Your task to perform on an android device: When is my next meeting? Image 0: 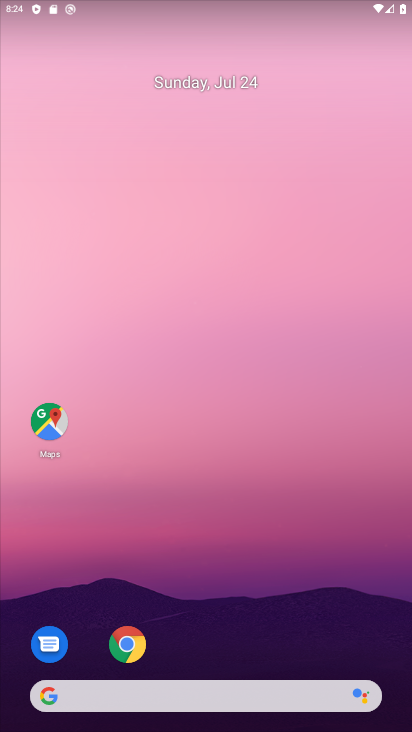
Step 0: drag from (279, 623) to (251, 30)
Your task to perform on an android device: When is my next meeting? Image 1: 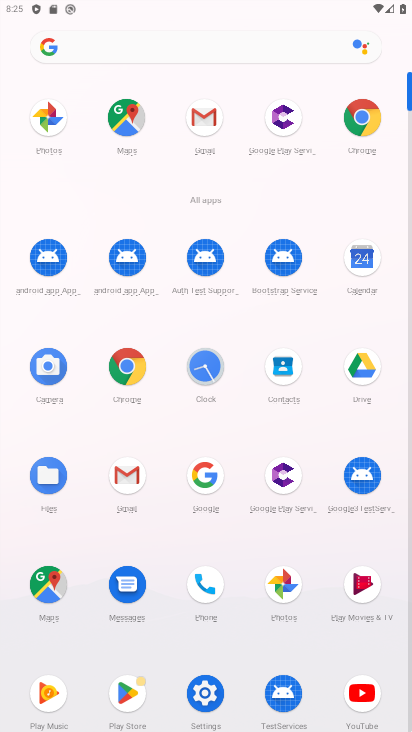
Step 1: click (359, 269)
Your task to perform on an android device: When is my next meeting? Image 2: 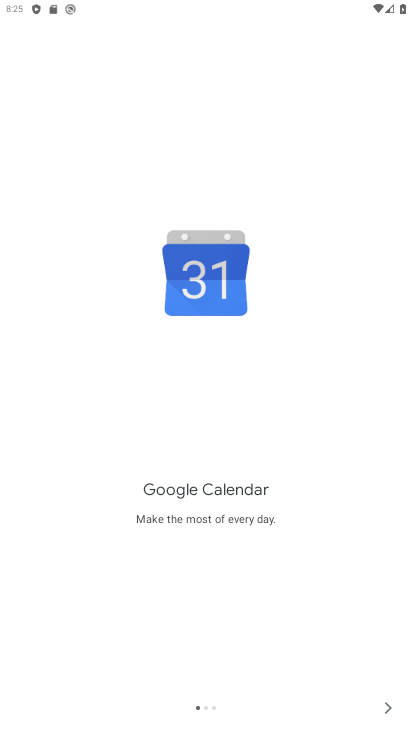
Step 2: click (379, 700)
Your task to perform on an android device: When is my next meeting? Image 3: 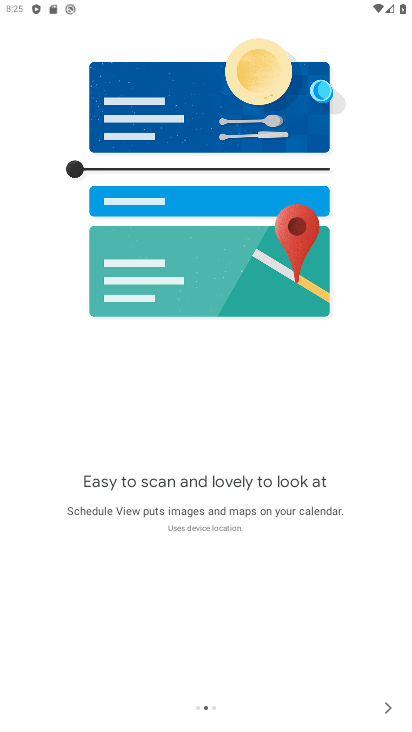
Step 3: click (379, 700)
Your task to perform on an android device: When is my next meeting? Image 4: 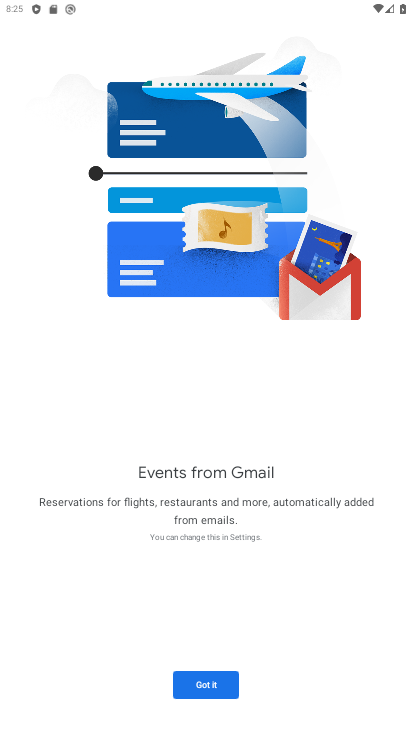
Step 4: click (379, 700)
Your task to perform on an android device: When is my next meeting? Image 5: 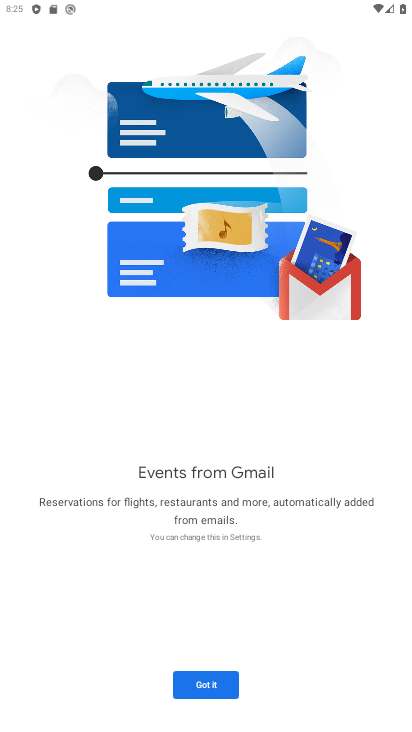
Step 5: click (212, 682)
Your task to perform on an android device: When is my next meeting? Image 6: 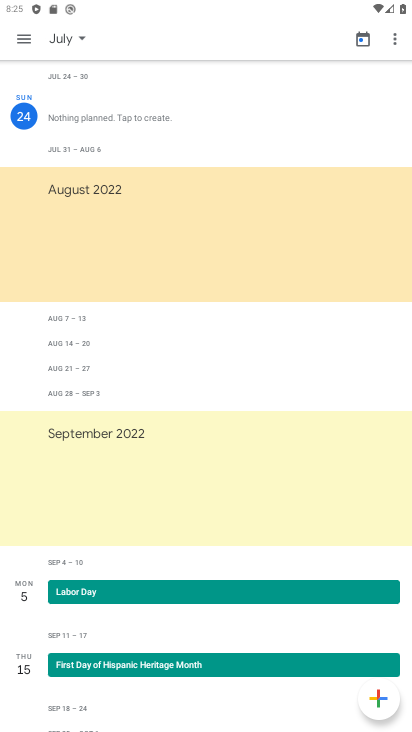
Step 6: click (15, 33)
Your task to perform on an android device: When is my next meeting? Image 7: 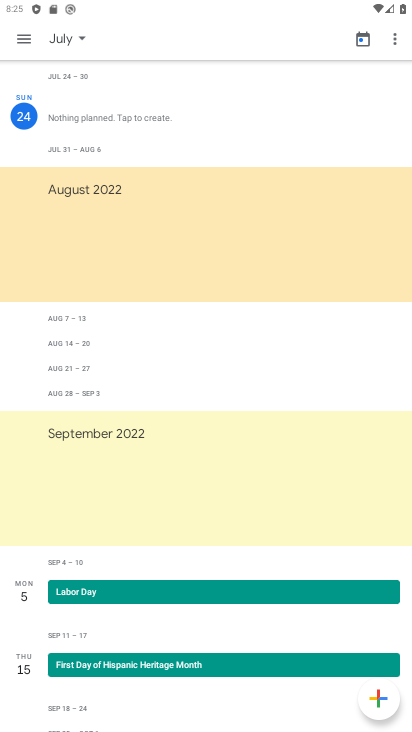
Step 7: click (13, 33)
Your task to perform on an android device: When is my next meeting? Image 8: 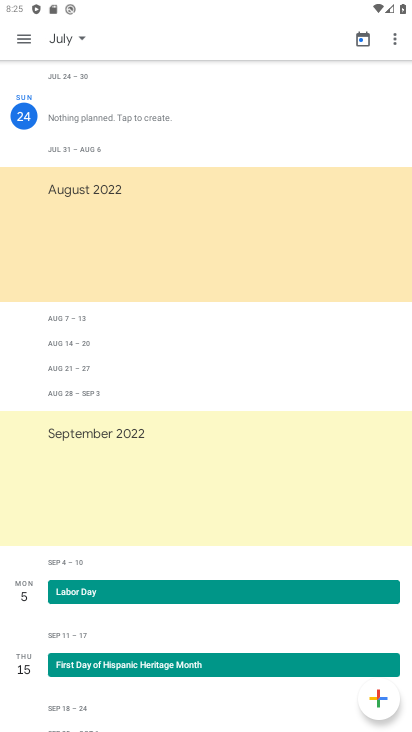
Step 8: click (19, 34)
Your task to perform on an android device: When is my next meeting? Image 9: 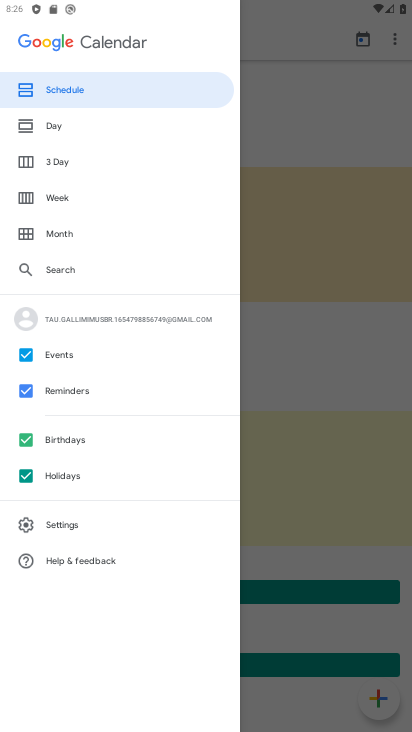
Step 9: click (326, 59)
Your task to perform on an android device: When is my next meeting? Image 10: 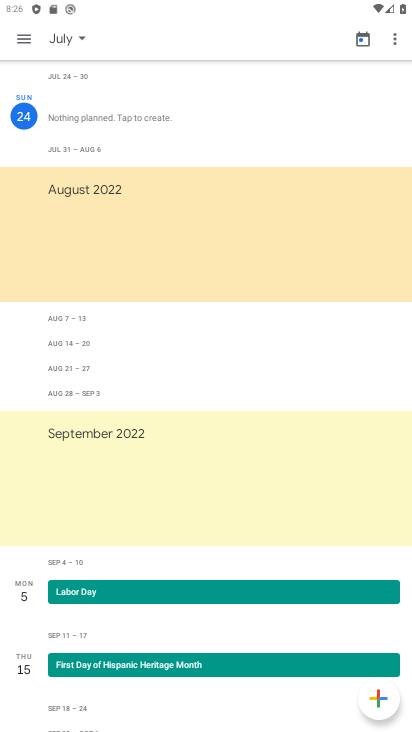
Step 10: click (359, 42)
Your task to perform on an android device: When is my next meeting? Image 11: 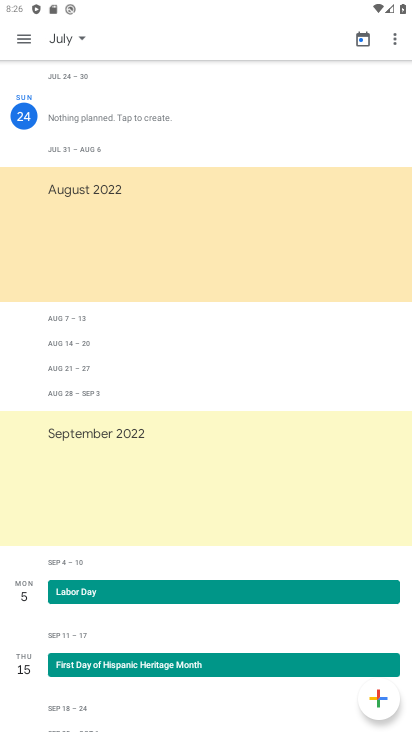
Step 11: click (359, 42)
Your task to perform on an android device: When is my next meeting? Image 12: 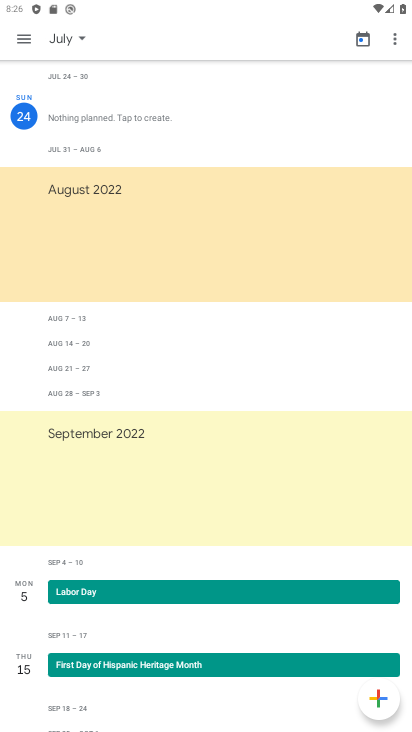
Step 12: click (359, 42)
Your task to perform on an android device: When is my next meeting? Image 13: 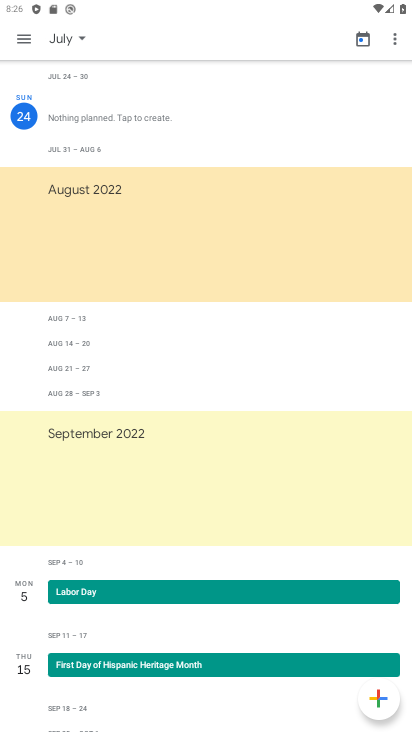
Step 13: click (359, 42)
Your task to perform on an android device: When is my next meeting? Image 14: 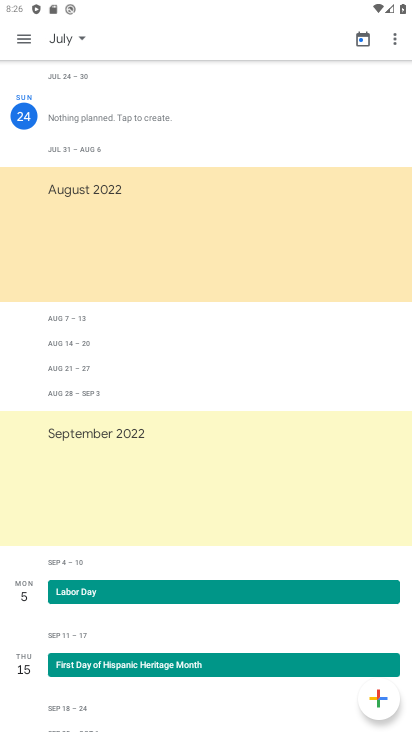
Step 14: click (357, 42)
Your task to perform on an android device: When is my next meeting? Image 15: 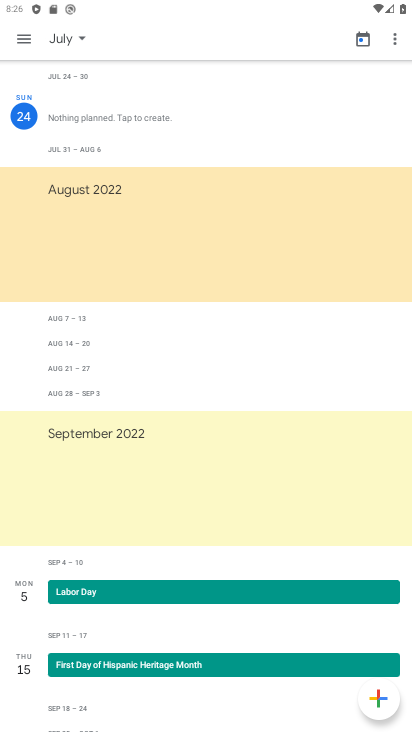
Step 15: click (357, 42)
Your task to perform on an android device: When is my next meeting? Image 16: 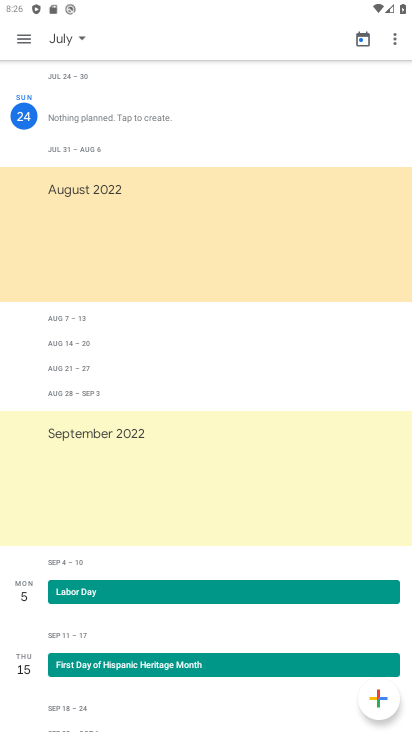
Step 16: click (71, 39)
Your task to perform on an android device: When is my next meeting? Image 17: 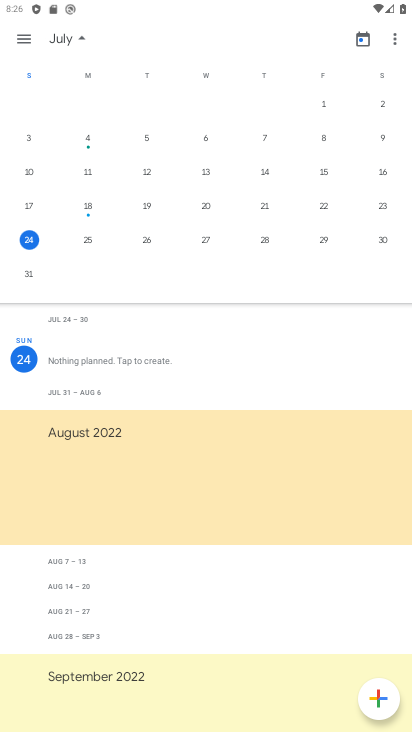
Step 17: click (71, 39)
Your task to perform on an android device: When is my next meeting? Image 18: 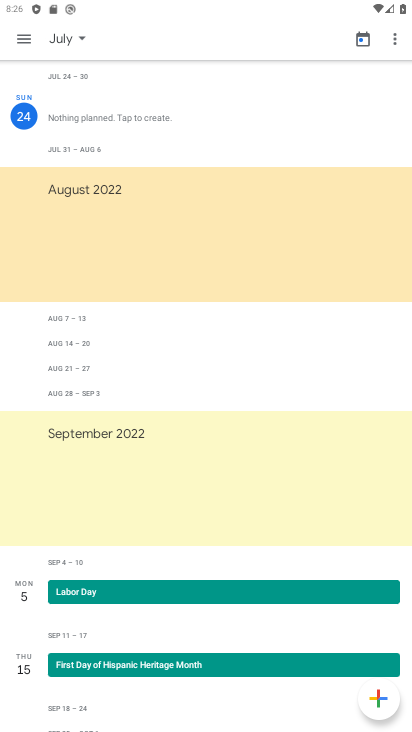
Step 18: click (71, 39)
Your task to perform on an android device: When is my next meeting? Image 19: 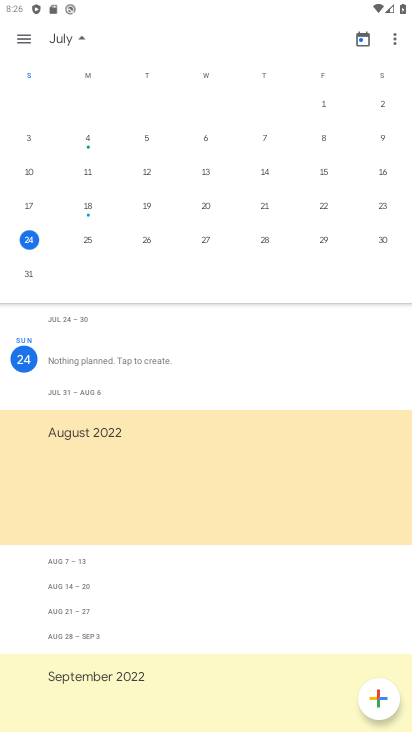
Step 19: click (80, 237)
Your task to perform on an android device: When is my next meeting? Image 20: 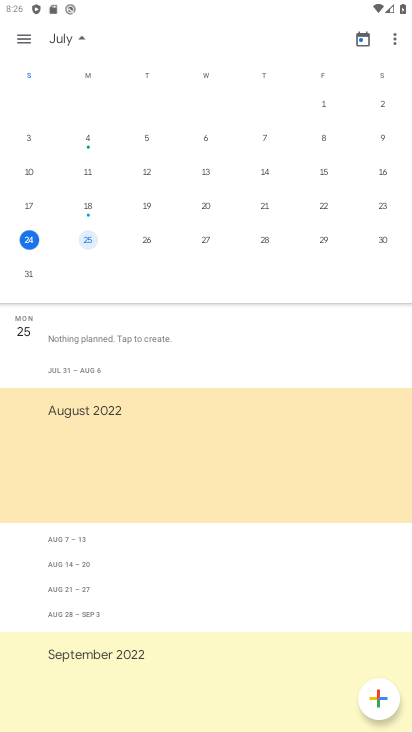
Step 20: task complete